Your task to perform on an android device: toggle improve location accuracy Image 0: 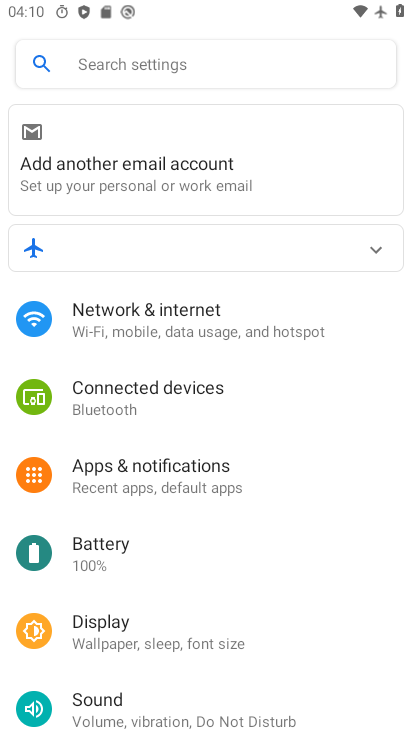
Step 0: drag from (230, 555) to (262, 221)
Your task to perform on an android device: toggle improve location accuracy Image 1: 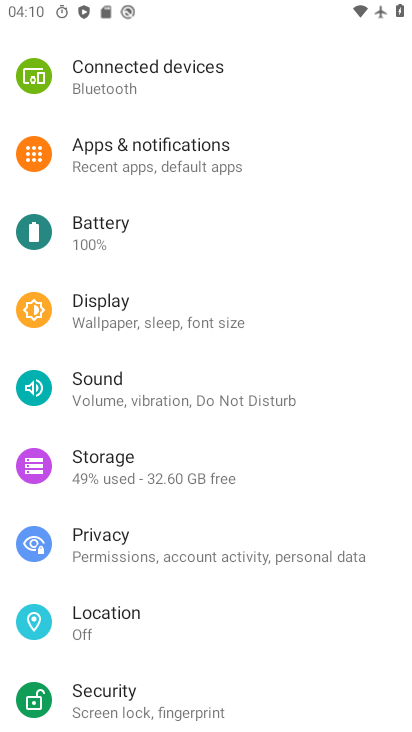
Step 1: click (104, 600)
Your task to perform on an android device: toggle improve location accuracy Image 2: 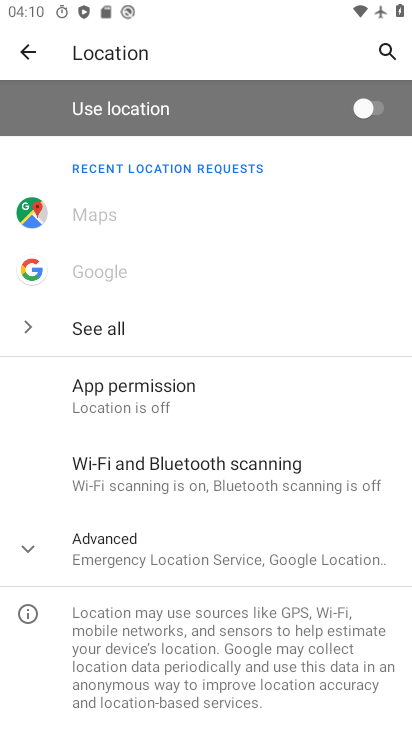
Step 2: click (25, 546)
Your task to perform on an android device: toggle improve location accuracy Image 3: 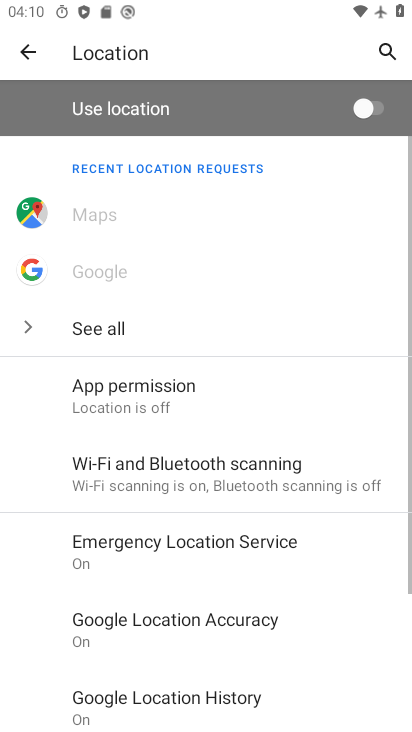
Step 3: drag from (69, 571) to (99, 385)
Your task to perform on an android device: toggle improve location accuracy Image 4: 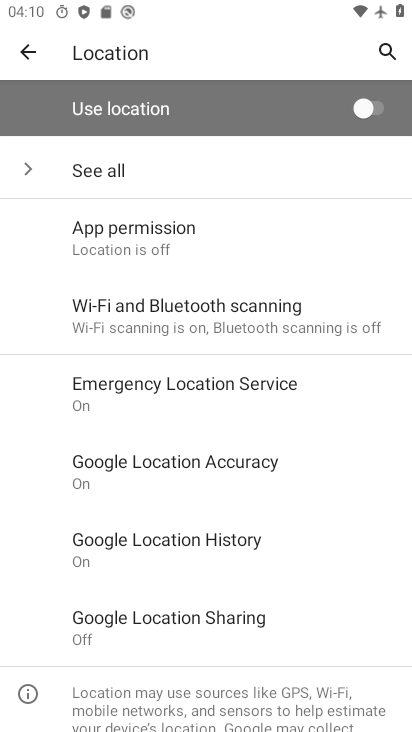
Step 4: click (71, 480)
Your task to perform on an android device: toggle improve location accuracy Image 5: 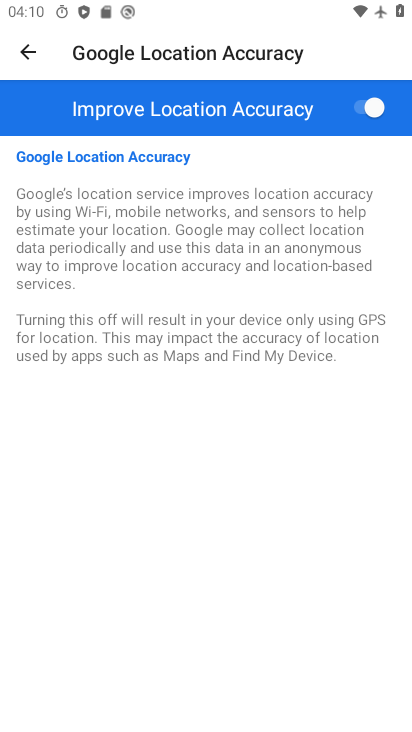
Step 5: click (377, 103)
Your task to perform on an android device: toggle improve location accuracy Image 6: 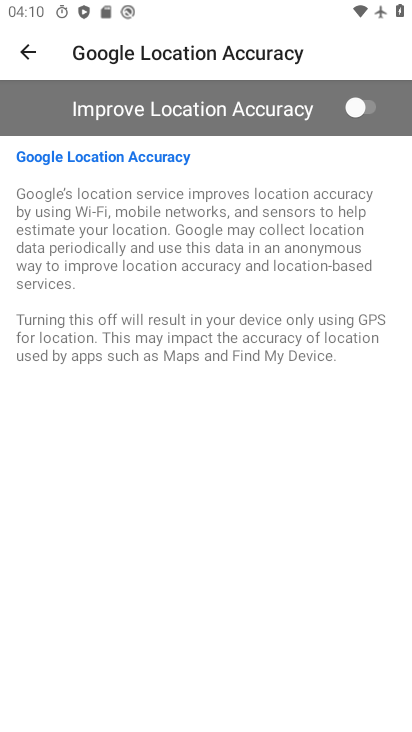
Step 6: task complete